Your task to perform on an android device: Do I have any events tomorrow? Image 0: 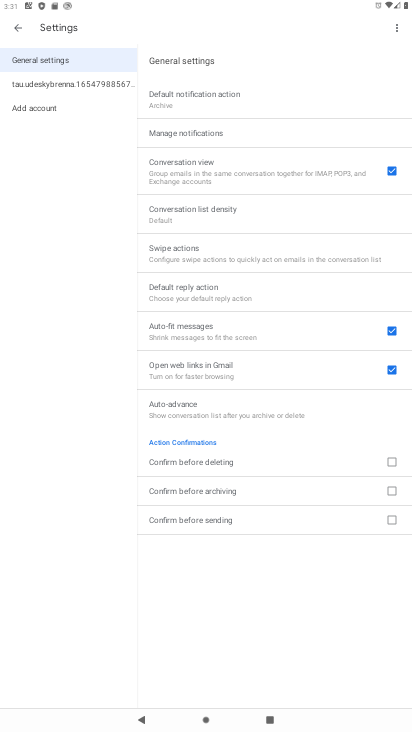
Step 0: press home button
Your task to perform on an android device: Do I have any events tomorrow? Image 1: 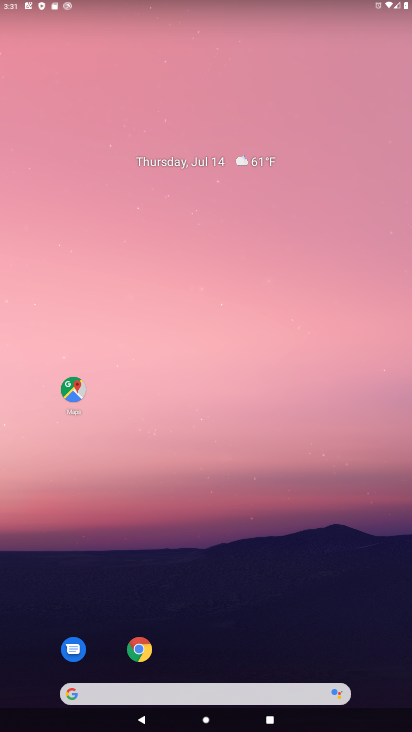
Step 1: drag from (211, 629) to (219, 176)
Your task to perform on an android device: Do I have any events tomorrow? Image 2: 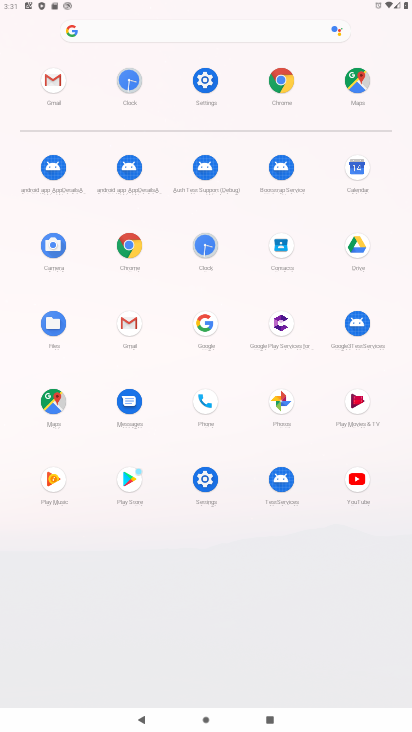
Step 2: click (351, 167)
Your task to perform on an android device: Do I have any events tomorrow? Image 3: 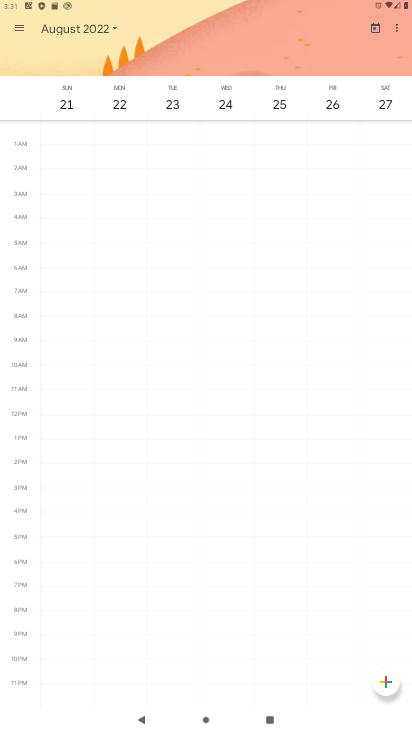
Step 3: click (373, 27)
Your task to perform on an android device: Do I have any events tomorrow? Image 4: 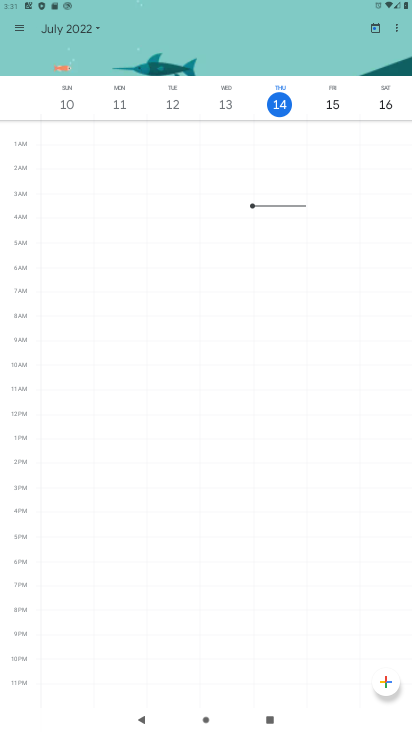
Step 4: click (327, 104)
Your task to perform on an android device: Do I have any events tomorrow? Image 5: 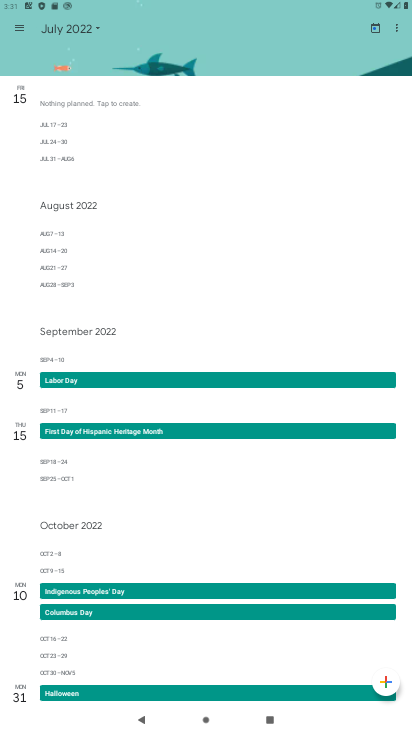
Step 5: task complete